Your task to perform on an android device: Open Maps and search for coffee Image 0: 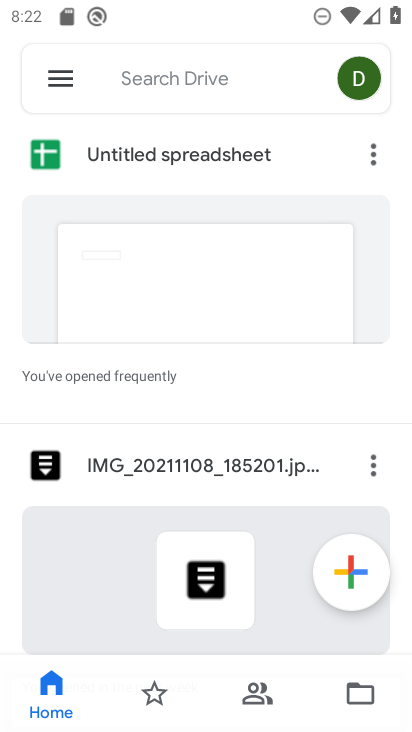
Step 0: press home button
Your task to perform on an android device: Open Maps and search for coffee Image 1: 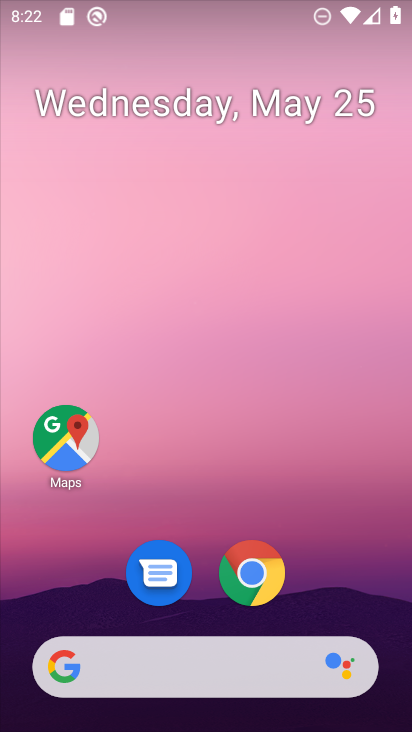
Step 1: click (81, 434)
Your task to perform on an android device: Open Maps and search for coffee Image 2: 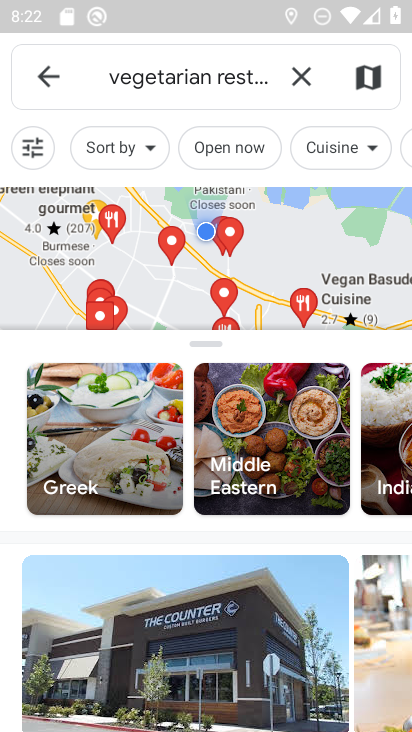
Step 2: click (301, 72)
Your task to perform on an android device: Open Maps and search for coffee Image 3: 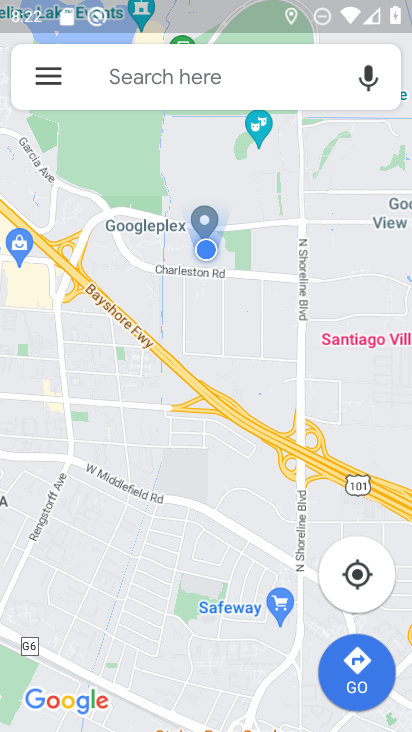
Step 3: click (141, 78)
Your task to perform on an android device: Open Maps and search for coffee Image 4: 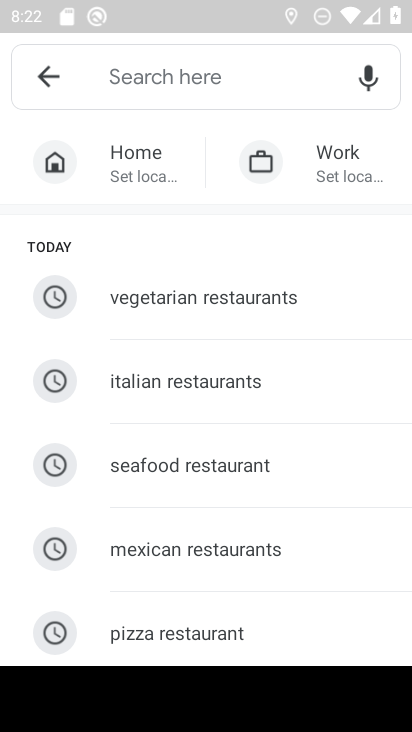
Step 4: type "coffee"
Your task to perform on an android device: Open Maps and search for coffee Image 5: 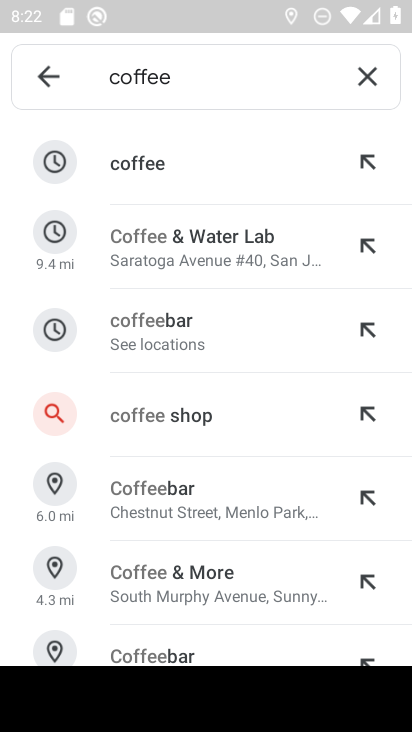
Step 5: click (142, 157)
Your task to perform on an android device: Open Maps and search for coffee Image 6: 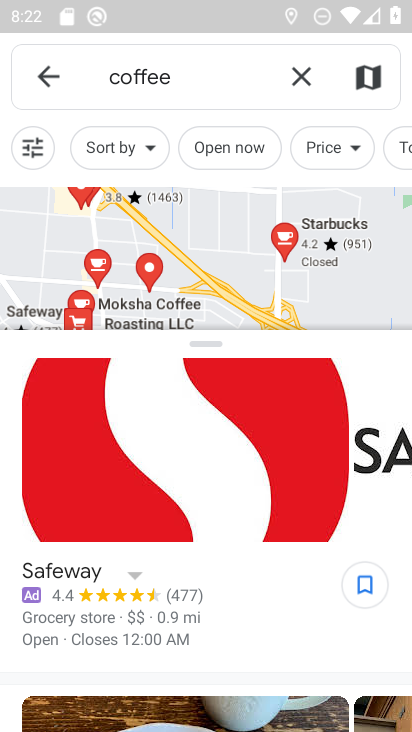
Step 6: task complete